Your task to perform on an android device: When is my next meeting? Image 0: 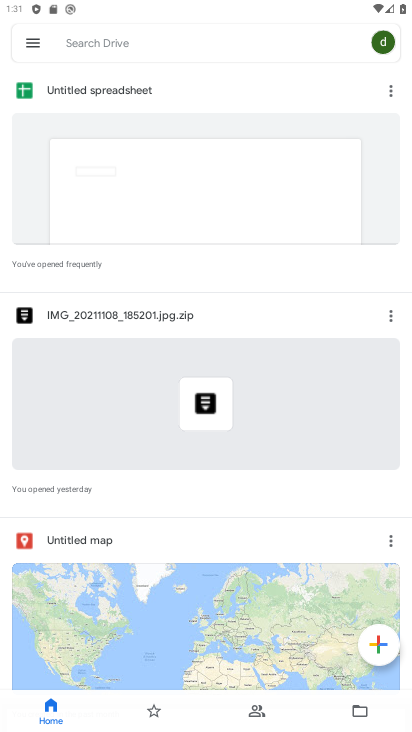
Step 0: press home button
Your task to perform on an android device: When is my next meeting? Image 1: 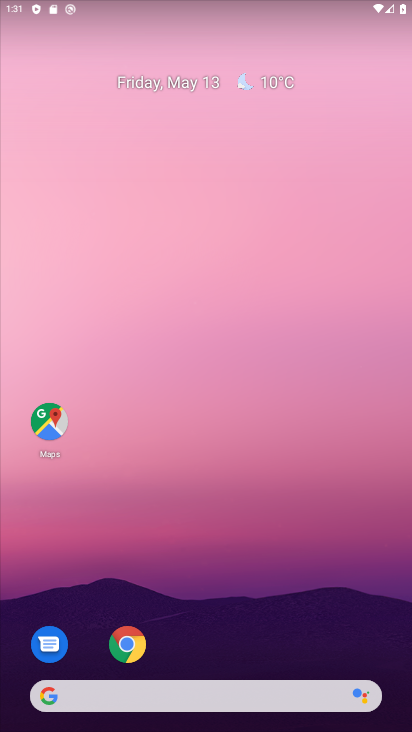
Step 1: drag from (280, 694) to (404, 1)
Your task to perform on an android device: When is my next meeting? Image 2: 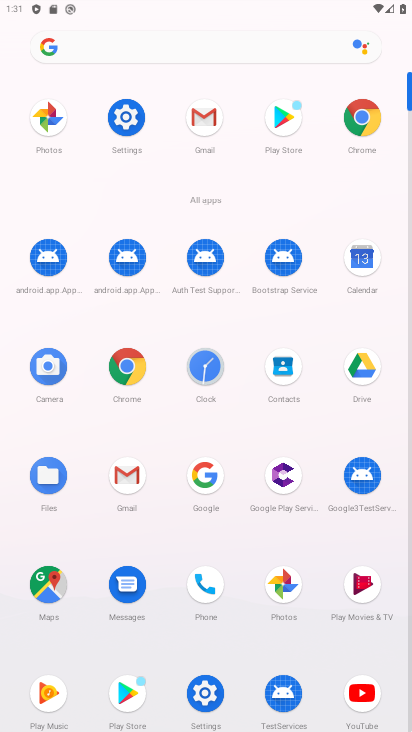
Step 2: click (119, 363)
Your task to perform on an android device: When is my next meeting? Image 3: 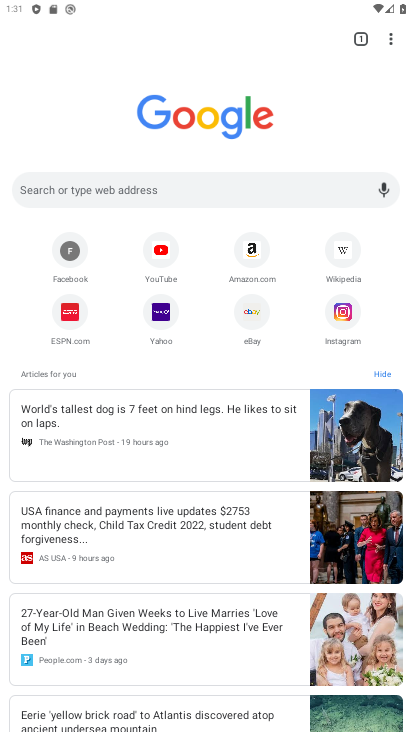
Step 3: click (95, 197)
Your task to perform on an android device: When is my next meeting? Image 4: 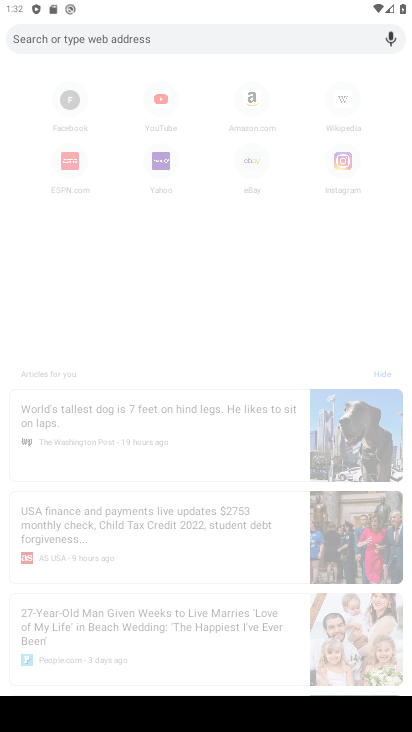
Step 4: press home button
Your task to perform on an android device: When is my next meeting? Image 5: 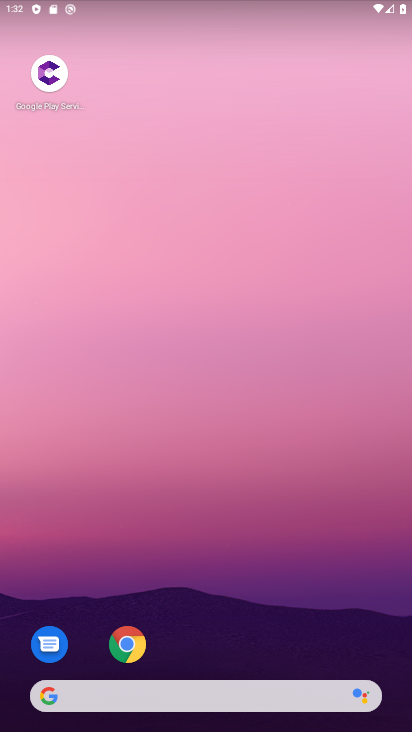
Step 5: drag from (283, 700) to (334, 0)
Your task to perform on an android device: When is my next meeting? Image 6: 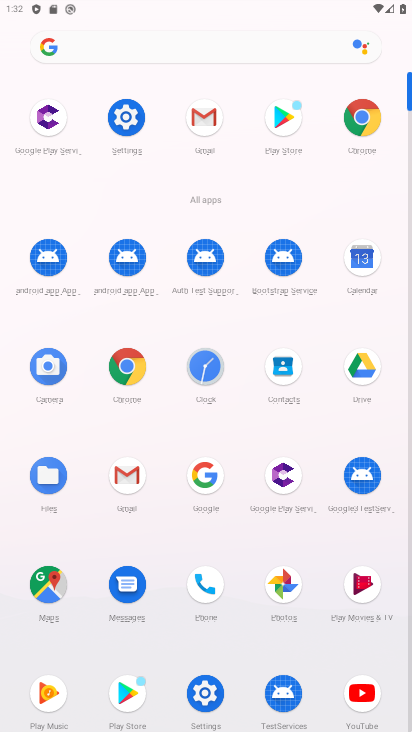
Step 6: click (368, 264)
Your task to perform on an android device: When is my next meeting? Image 7: 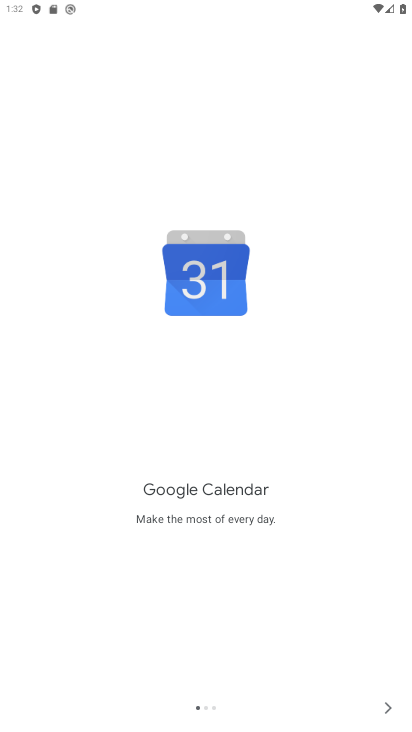
Step 7: click (396, 706)
Your task to perform on an android device: When is my next meeting? Image 8: 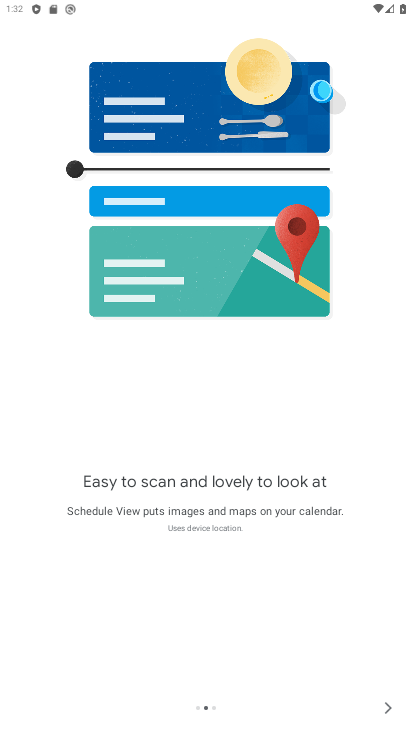
Step 8: click (396, 706)
Your task to perform on an android device: When is my next meeting? Image 9: 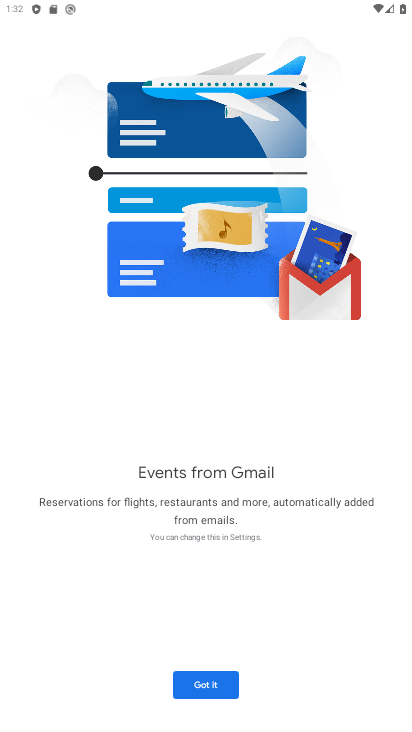
Step 9: click (186, 681)
Your task to perform on an android device: When is my next meeting? Image 10: 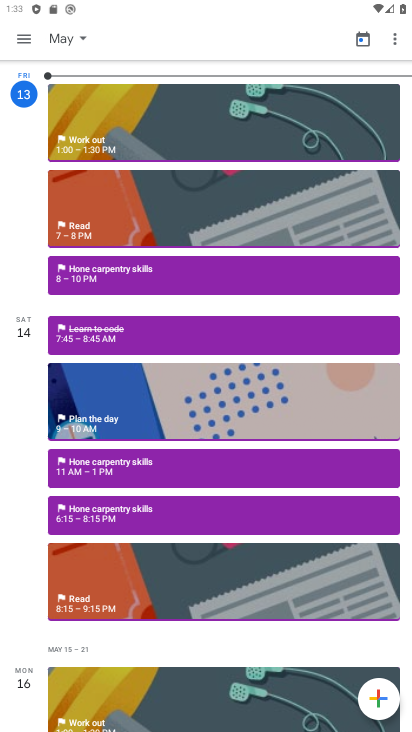
Step 10: click (87, 33)
Your task to perform on an android device: When is my next meeting? Image 11: 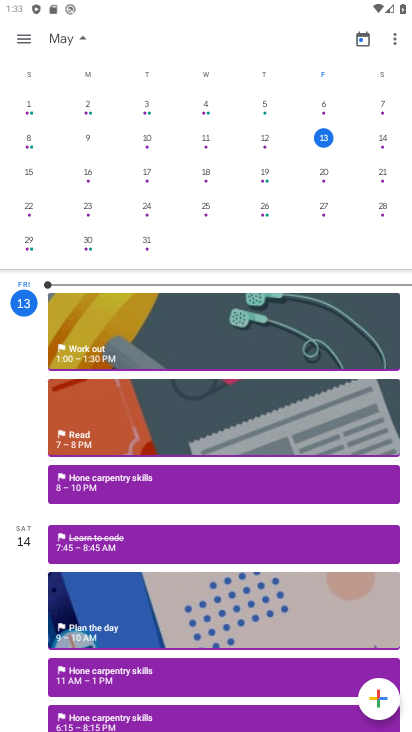
Step 11: click (319, 135)
Your task to perform on an android device: When is my next meeting? Image 12: 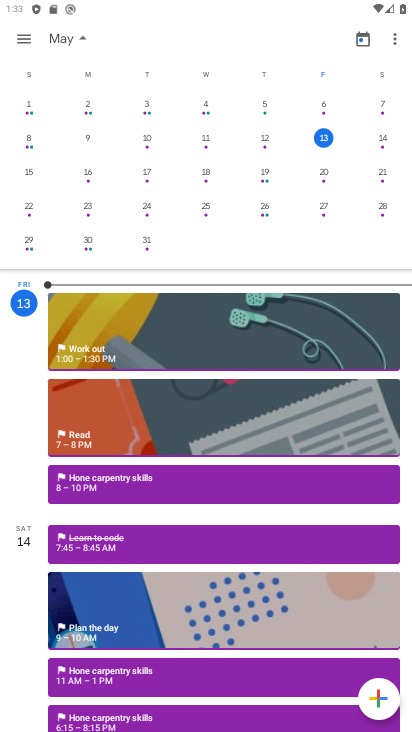
Step 12: task complete